Your task to perform on an android device: clear all cookies in the chrome app Image 0: 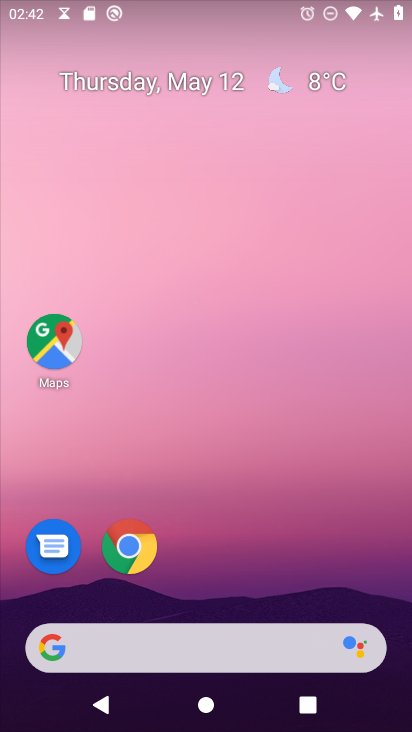
Step 0: drag from (118, 652) to (273, 215)
Your task to perform on an android device: clear all cookies in the chrome app Image 1: 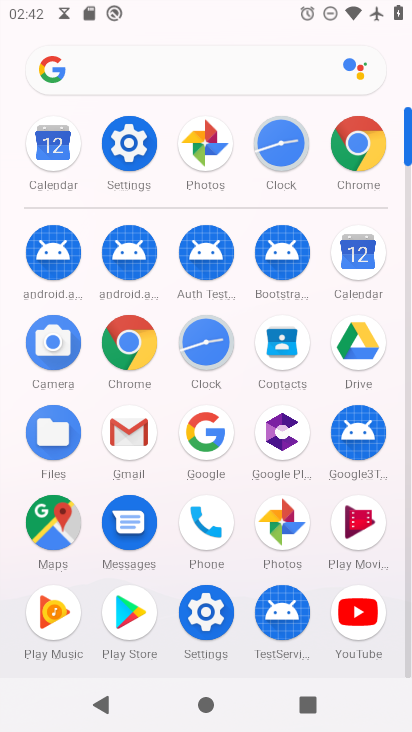
Step 1: click (356, 161)
Your task to perform on an android device: clear all cookies in the chrome app Image 2: 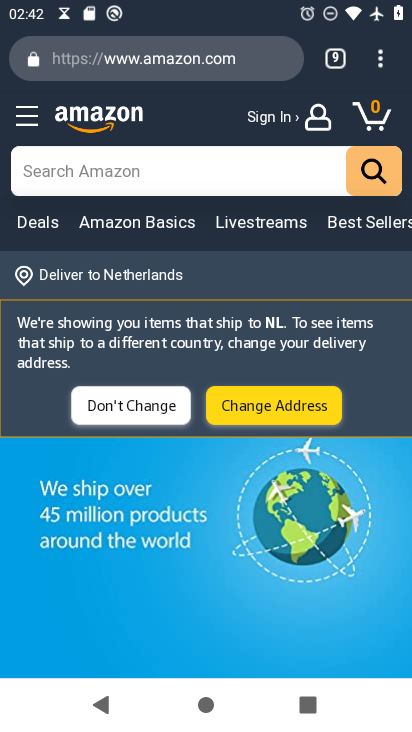
Step 2: drag from (380, 68) to (239, 580)
Your task to perform on an android device: clear all cookies in the chrome app Image 3: 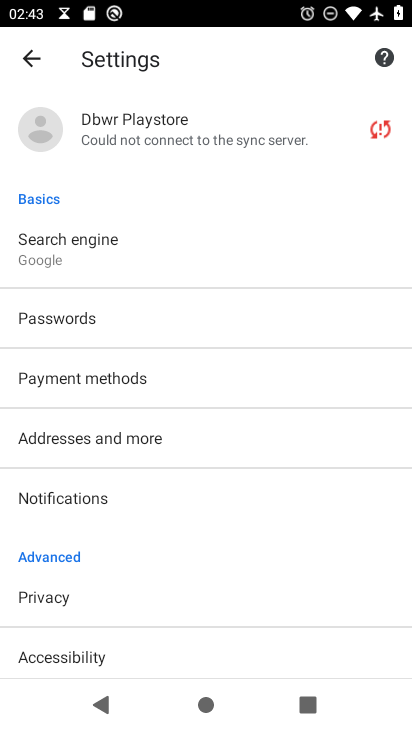
Step 3: click (40, 592)
Your task to perform on an android device: clear all cookies in the chrome app Image 4: 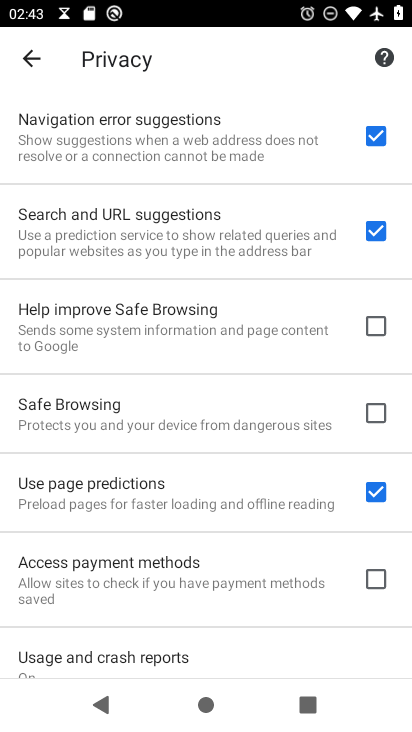
Step 4: drag from (193, 578) to (259, 179)
Your task to perform on an android device: clear all cookies in the chrome app Image 5: 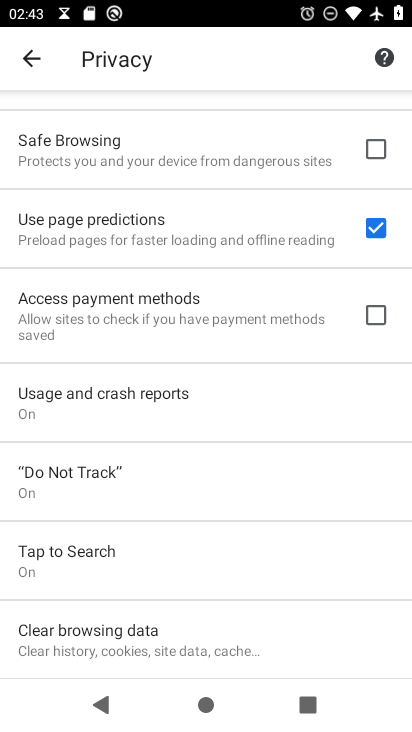
Step 5: click (102, 625)
Your task to perform on an android device: clear all cookies in the chrome app Image 6: 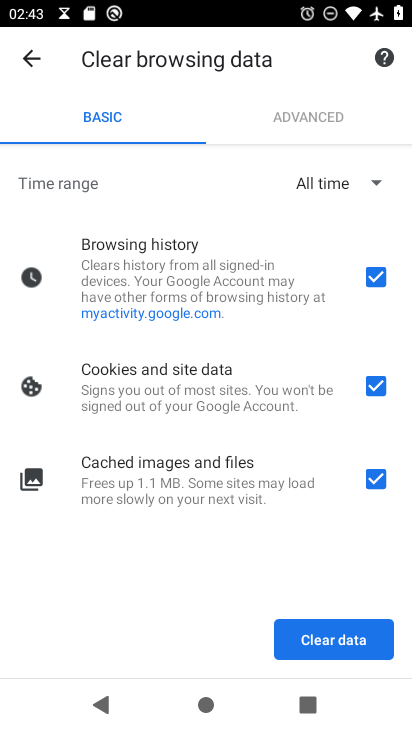
Step 6: click (369, 273)
Your task to perform on an android device: clear all cookies in the chrome app Image 7: 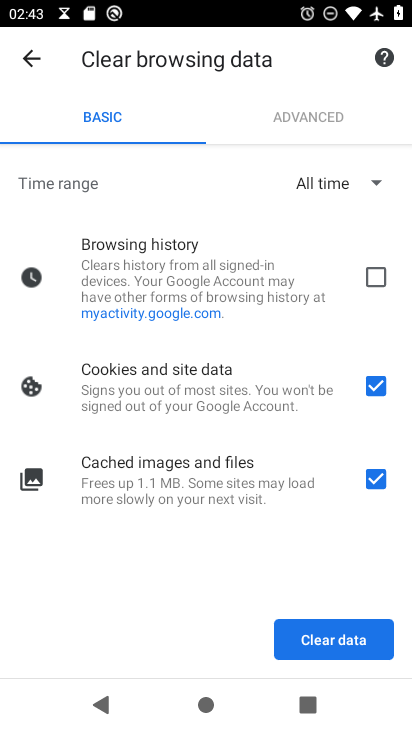
Step 7: click (367, 483)
Your task to perform on an android device: clear all cookies in the chrome app Image 8: 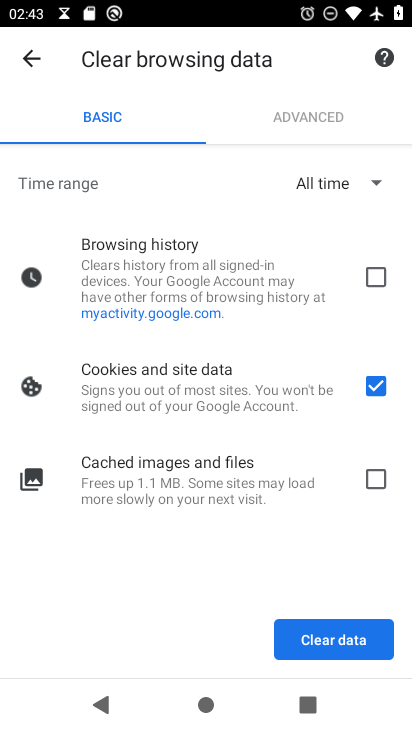
Step 8: click (310, 639)
Your task to perform on an android device: clear all cookies in the chrome app Image 9: 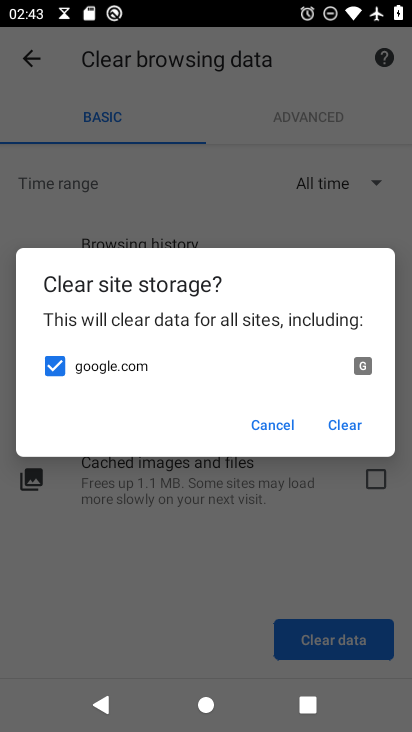
Step 9: click (348, 422)
Your task to perform on an android device: clear all cookies in the chrome app Image 10: 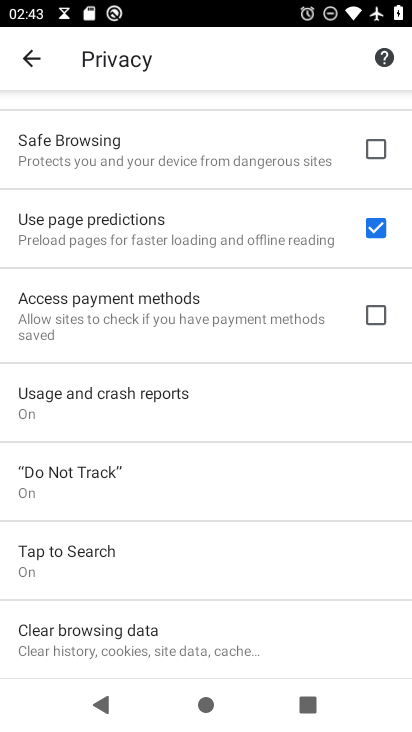
Step 10: task complete